Your task to perform on an android device: Turn on the flashlight Image 0: 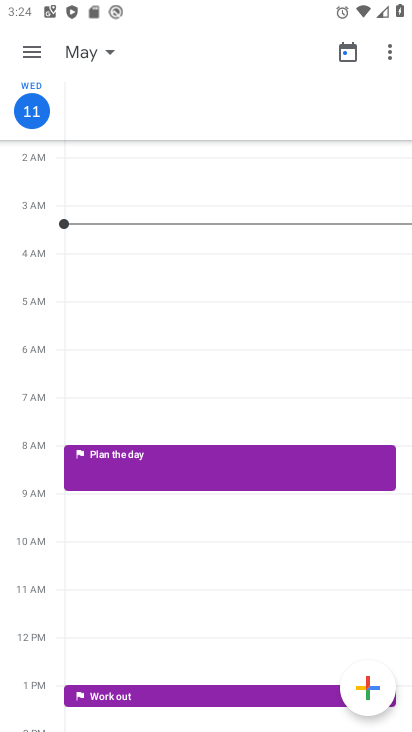
Step 0: press home button
Your task to perform on an android device: Turn on the flashlight Image 1: 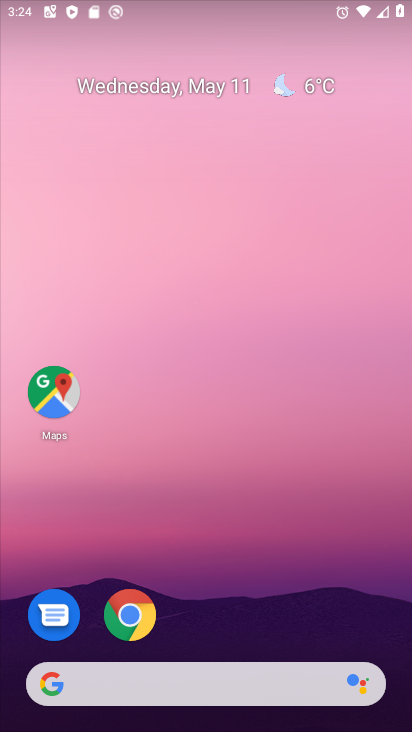
Step 1: task complete